Your task to perform on an android device: turn off wifi Image 0: 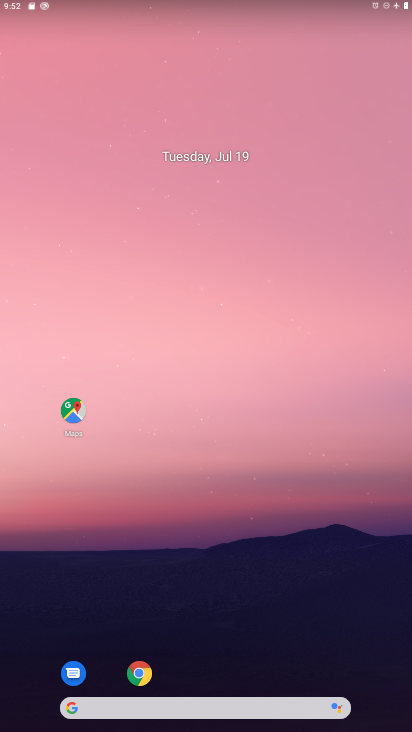
Step 0: drag from (380, 658) to (329, 165)
Your task to perform on an android device: turn off wifi Image 1: 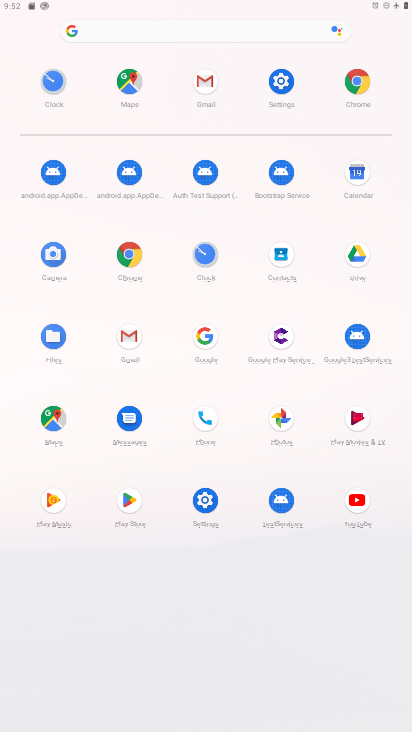
Step 1: click (205, 500)
Your task to perform on an android device: turn off wifi Image 2: 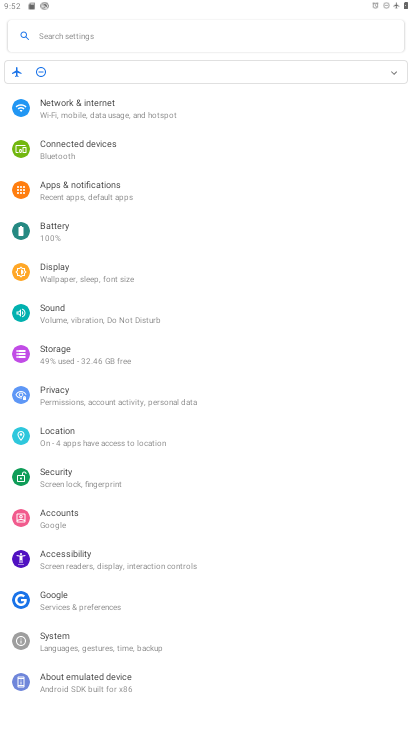
Step 2: click (64, 98)
Your task to perform on an android device: turn off wifi Image 3: 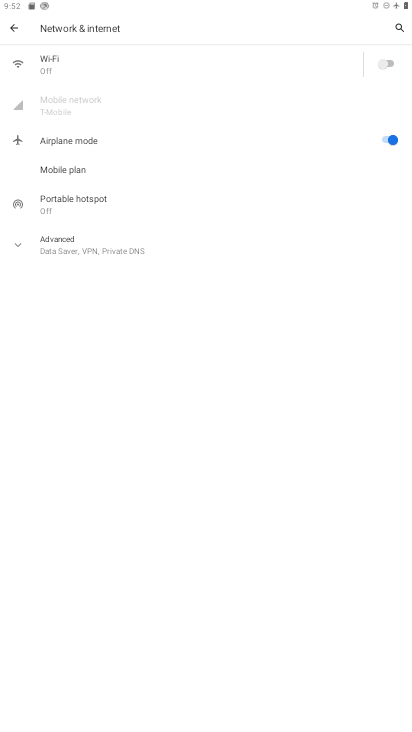
Step 3: task complete